Your task to perform on an android device: Go to Google maps Image 0: 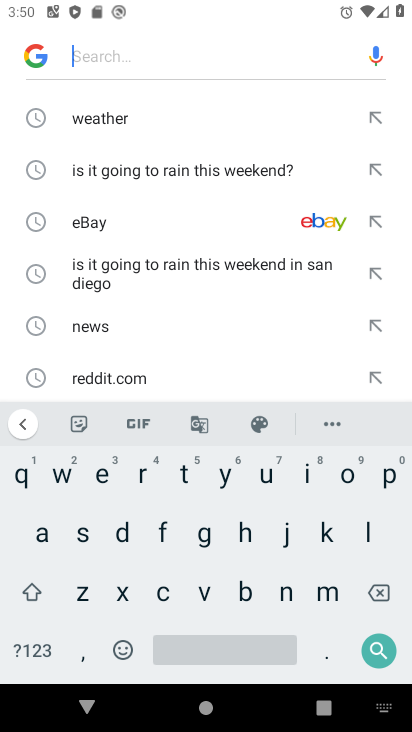
Step 0: press home button
Your task to perform on an android device: Go to Google maps Image 1: 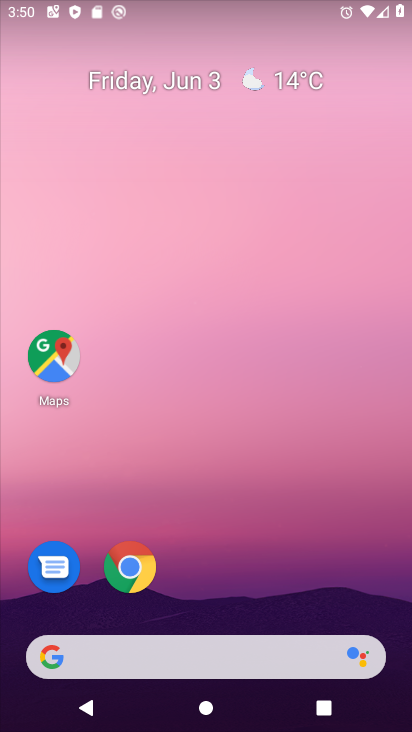
Step 1: drag from (256, 696) to (183, 155)
Your task to perform on an android device: Go to Google maps Image 2: 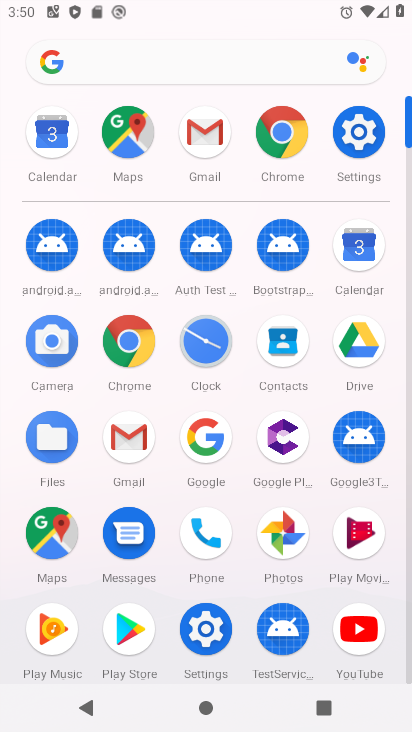
Step 2: click (130, 154)
Your task to perform on an android device: Go to Google maps Image 3: 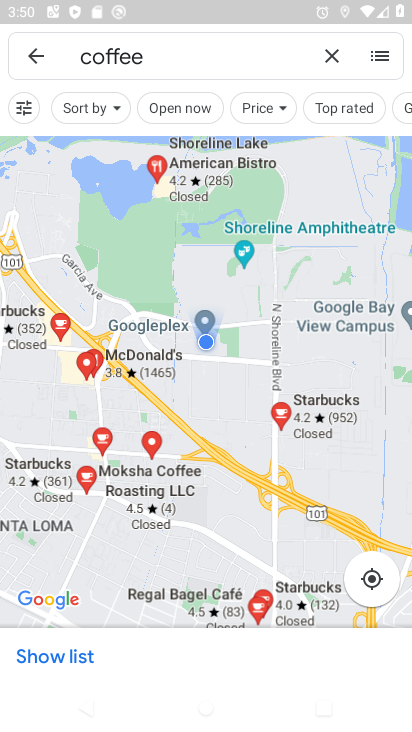
Step 3: click (29, 61)
Your task to perform on an android device: Go to Google maps Image 4: 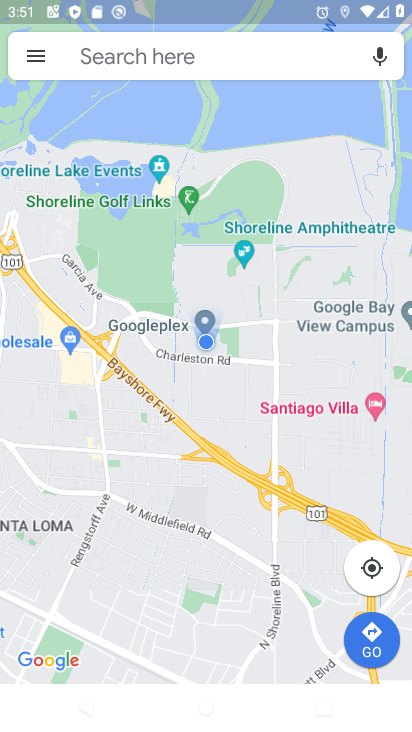
Step 4: task complete